Your task to perform on an android device: Go to calendar. Show me events next week Image 0: 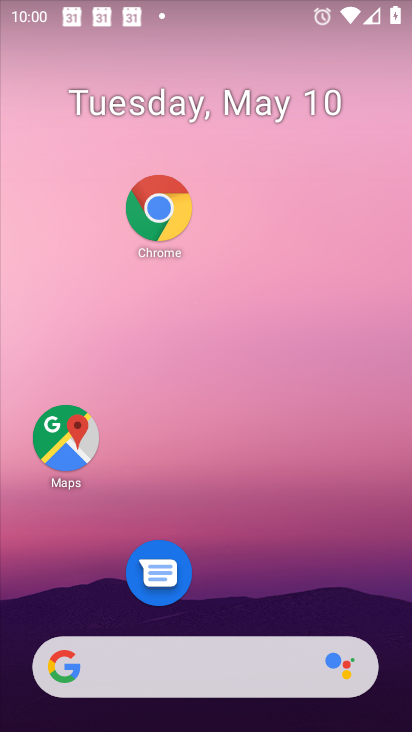
Step 0: drag from (254, 672) to (342, 136)
Your task to perform on an android device: Go to calendar. Show me events next week Image 1: 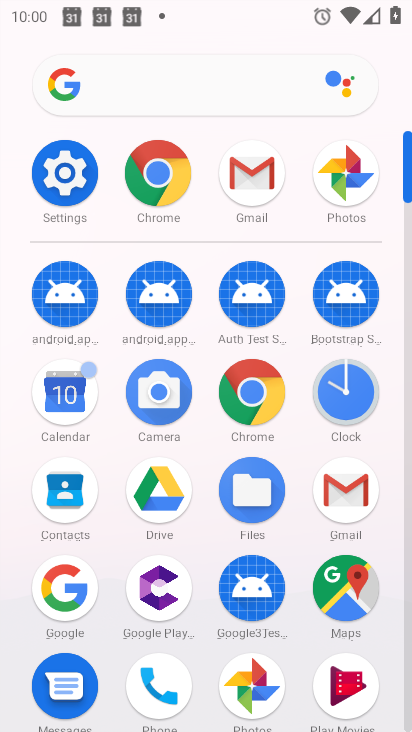
Step 1: click (79, 402)
Your task to perform on an android device: Go to calendar. Show me events next week Image 2: 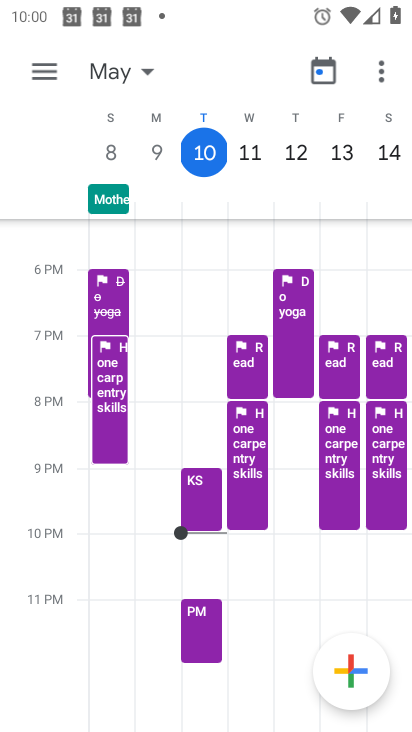
Step 2: click (46, 67)
Your task to perform on an android device: Go to calendar. Show me events next week Image 3: 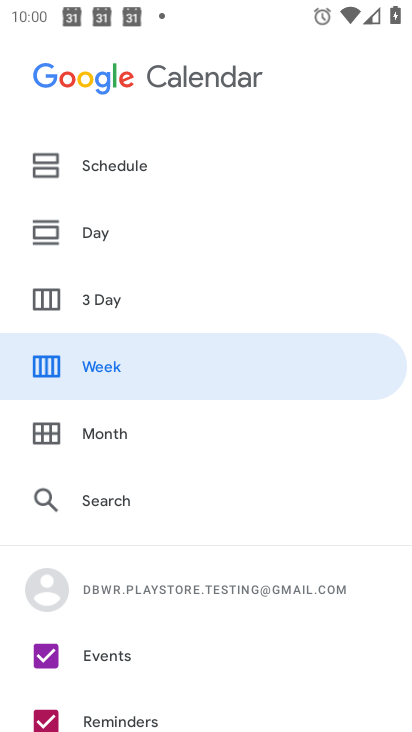
Step 3: click (108, 365)
Your task to perform on an android device: Go to calendar. Show me events next week Image 4: 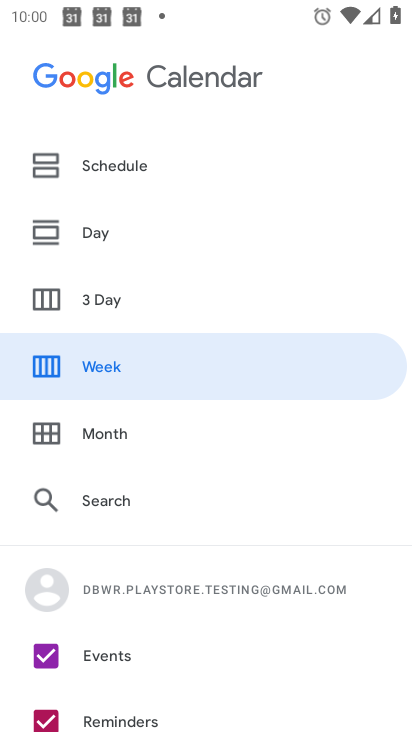
Step 4: click (168, 358)
Your task to perform on an android device: Go to calendar. Show me events next week Image 5: 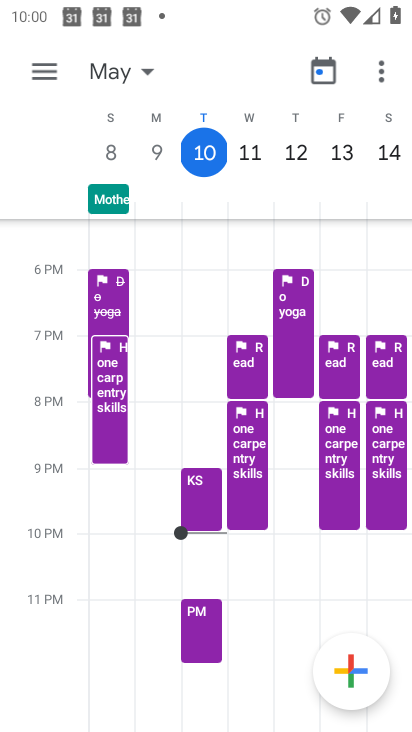
Step 5: task complete